Your task to perform on an android device: set the timer Image 0: 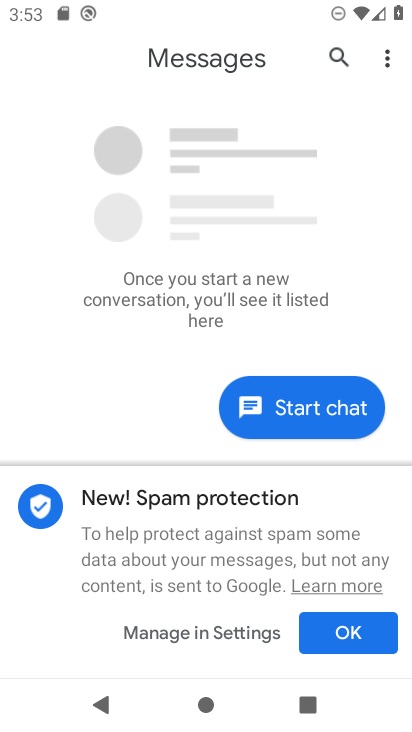
Step 0: press home button
Your task to perform on an android device: set the timer Image 1: 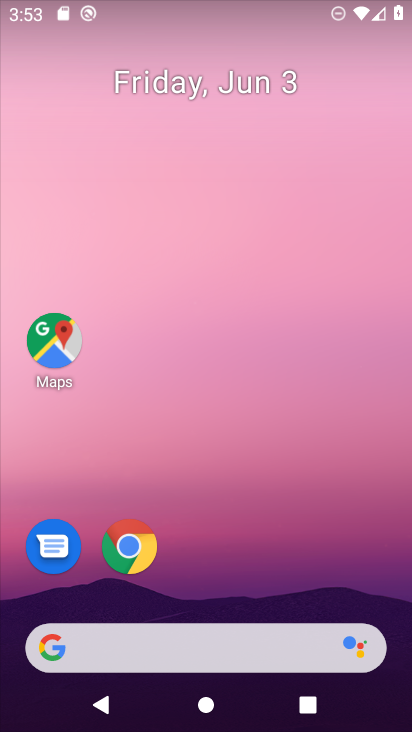
Step 1: drag from (231, 528) to (252, 21)
Your task to perform on an android device: set the timer Image 2: 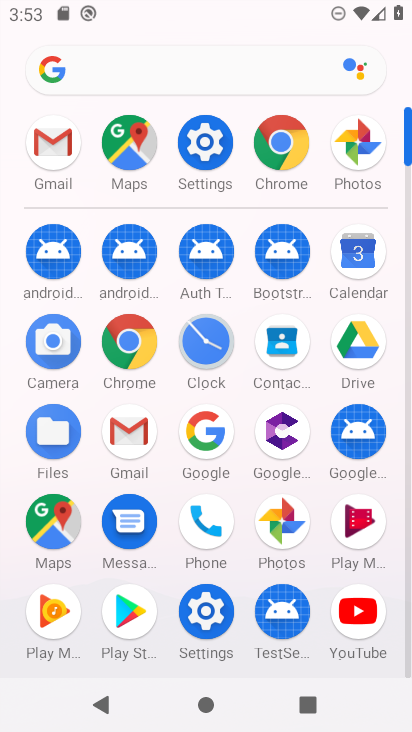
Step 2: click (206, 327)
Your task to perform on an android device: set the timer Image 3: 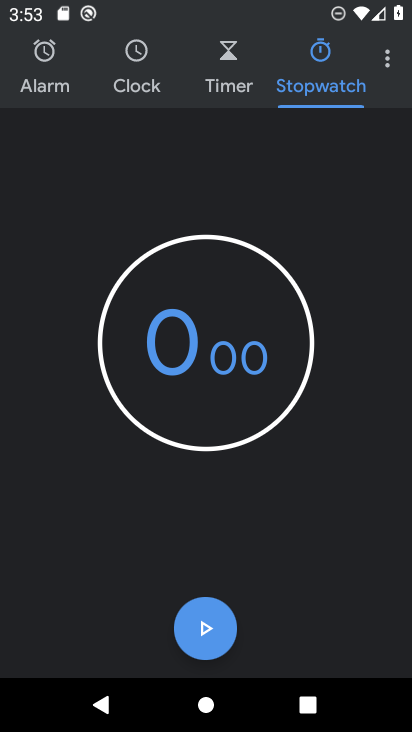
Step 3: click (237, 84)
Your task to perform on an android device: set the timer Image 4: 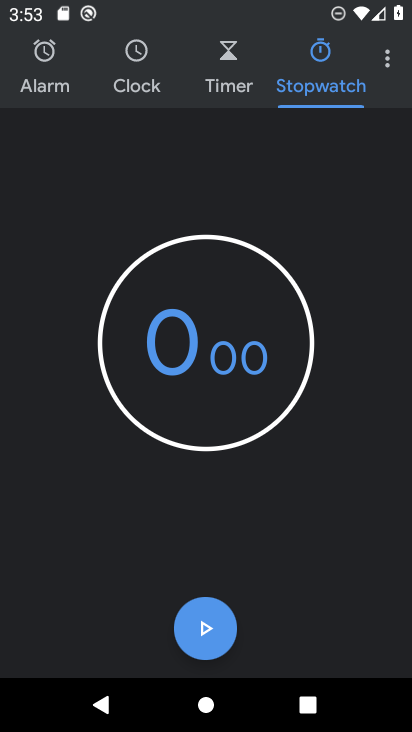
Step 4: click (229, 67)
Your task to perform on an android device: set the timer Image 5: 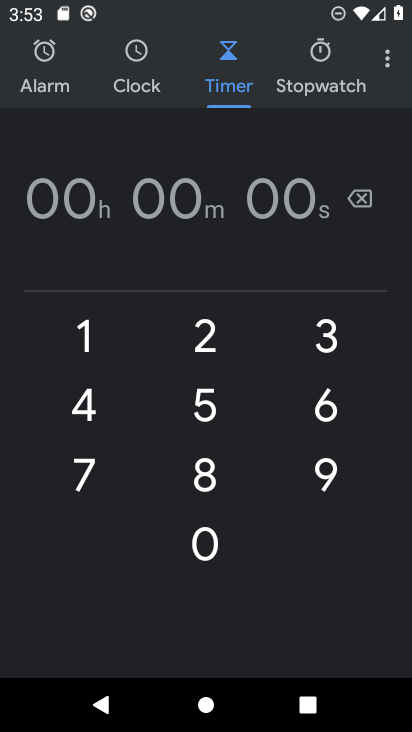
Step 5: click (89, 320)
Your task to perform on an android device: set the timer Image 6: 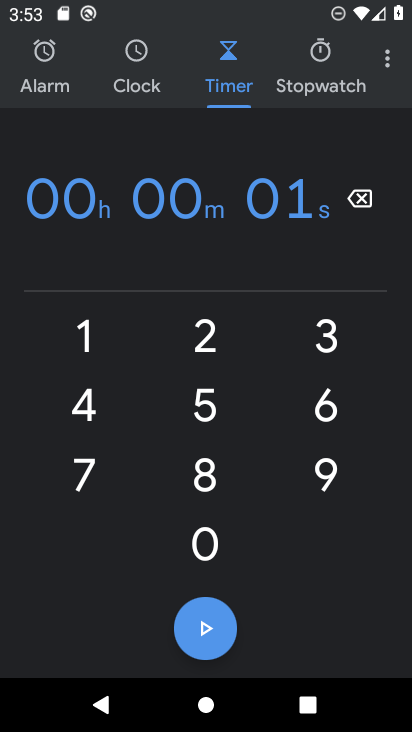
Step 6: task complete